Your task to perform on an android device: Open maps Image 0: 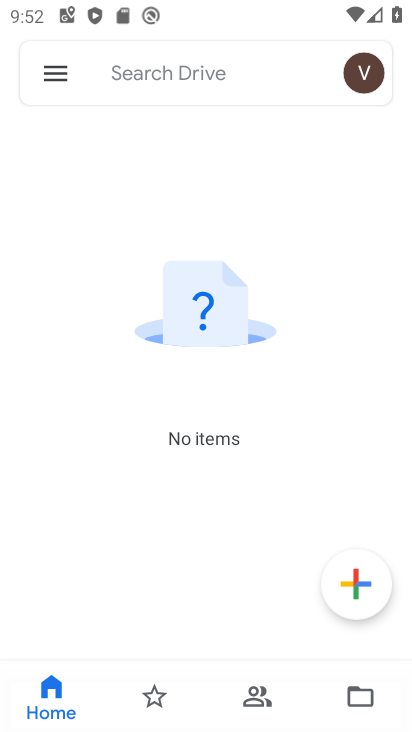
Step 0: press home button
Your task to perform on an android device: Open maps Image 1: 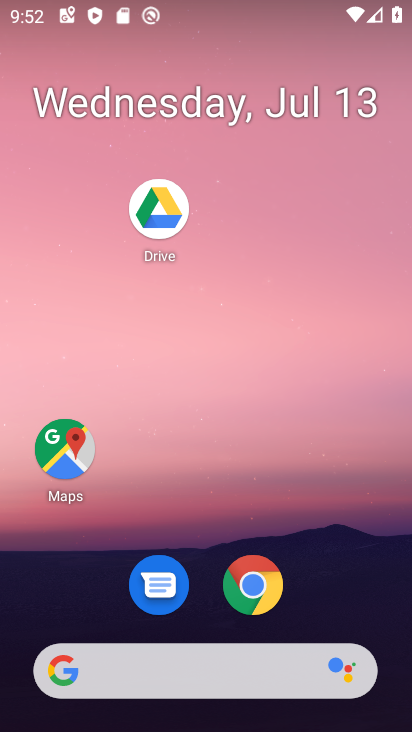
Step 1: click (56, 433)
Your task to perform on an android device: Open maps Image 2: 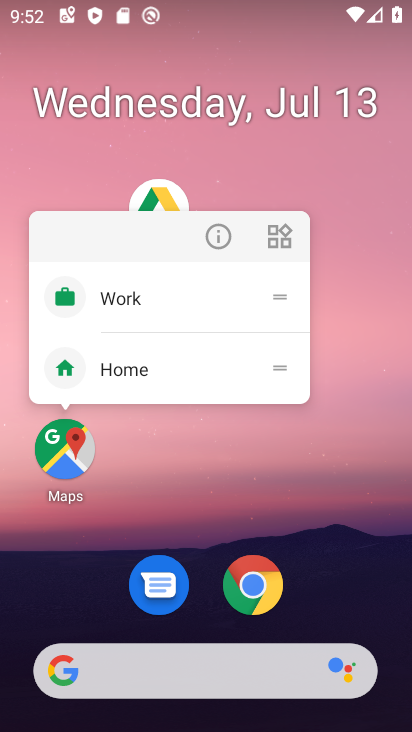
Step 2: click (58, 442)
Your task to perform on an android device: Open maps Image 3: 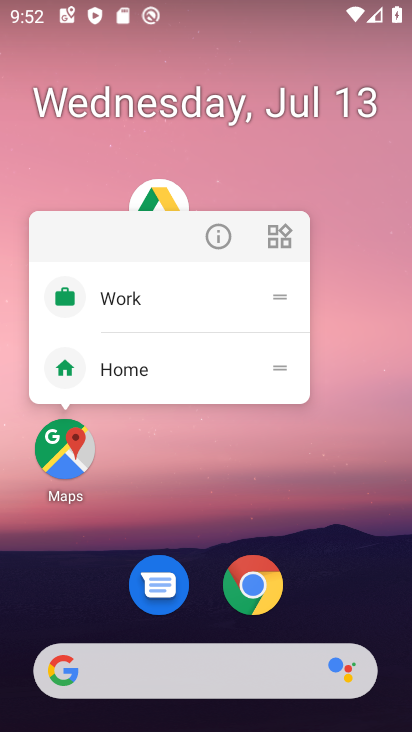
Step 3: click (62, 431)
Your task to perform on an android device: Open maps Image 4: 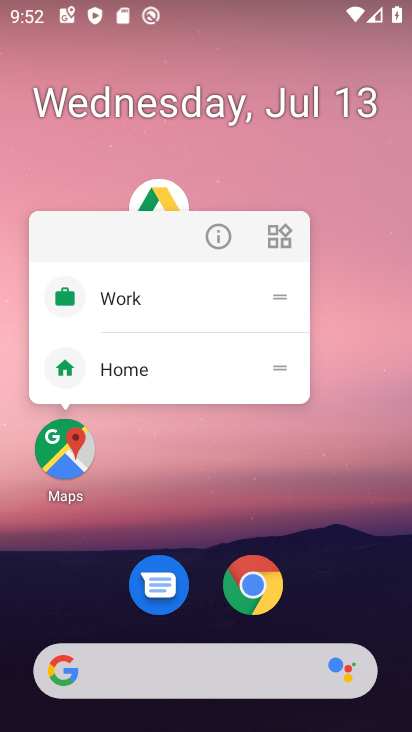
Step 4: click (69, 442)
Your task to perform on an android device: Open maps Image 5: 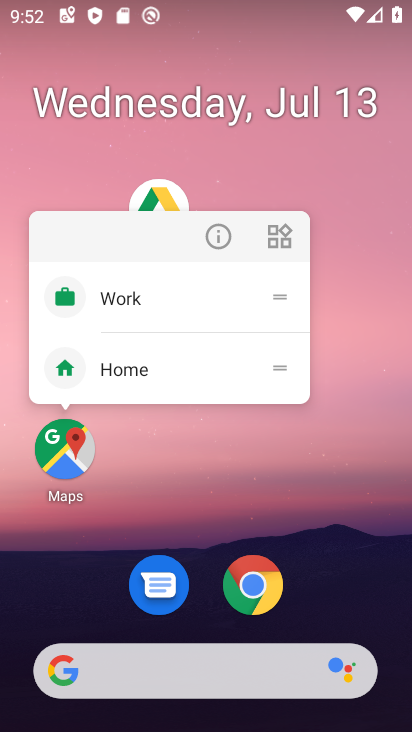
Step 5: click (69, 447)
Your task to perform on an android device: Open maps Image 6: 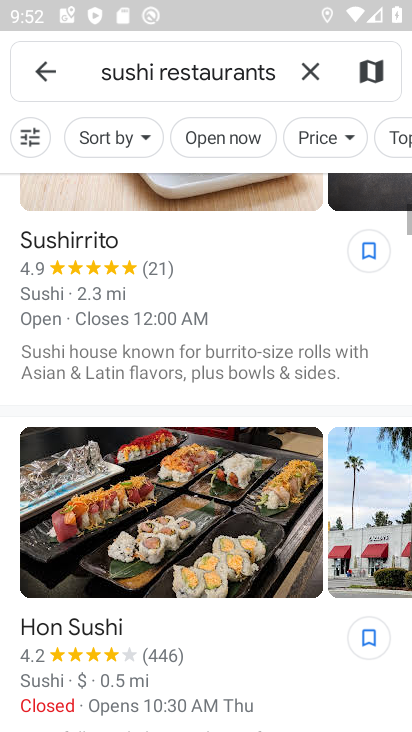
Step 6: click (51, 70)
Your task to perform on an android device: Open maps Image 7: 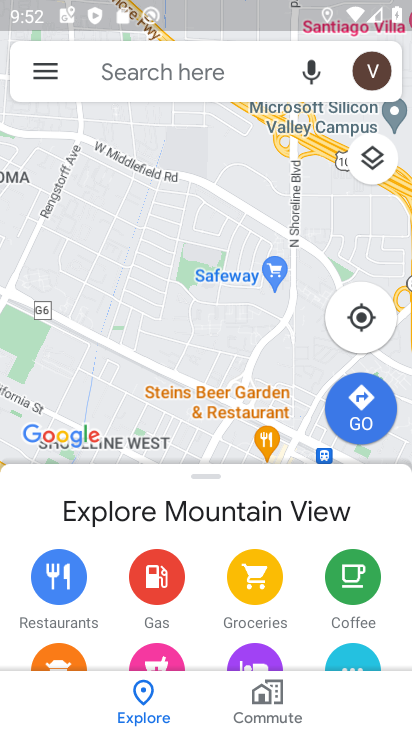
Step 7: task complete